Your task to perform on an android device: Open Wikipedia Image 0: 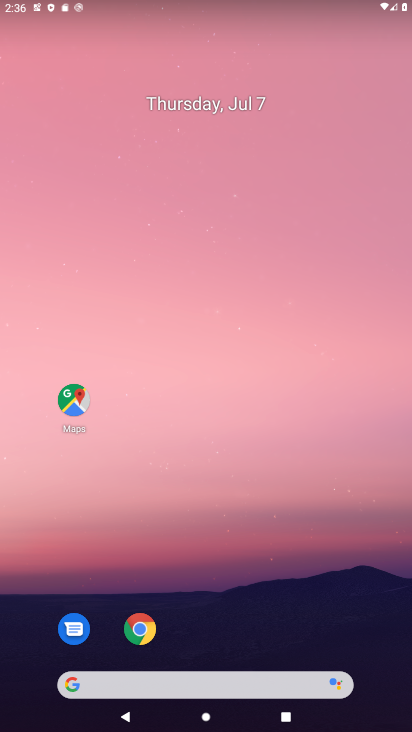
Step 0: click (140, 622)
Your task to perform on an android device: Open Wikipedia Image 1: 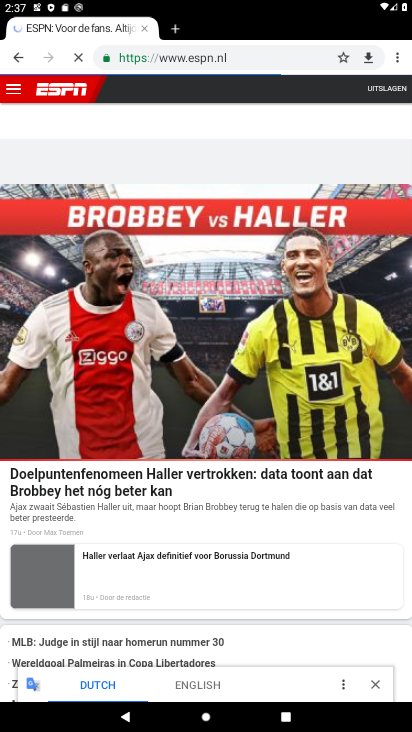
Step 1: click (173, 31)
Your task to perform on an android device: Open Wikipedia Image 2: 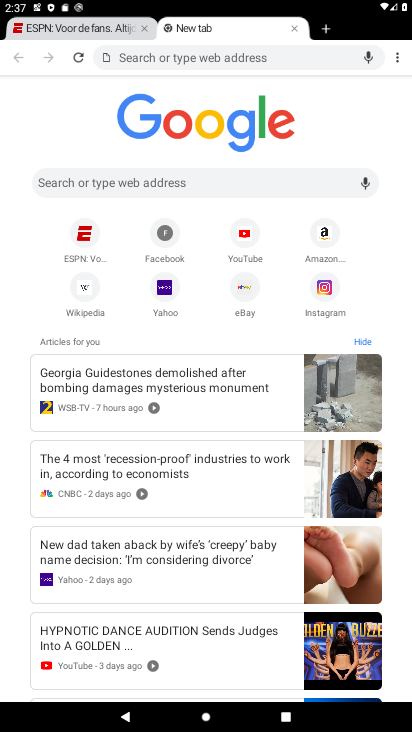
Step 2: click (81, 297)
Your task to perform on an android device: Open Wikipedia Image 3: 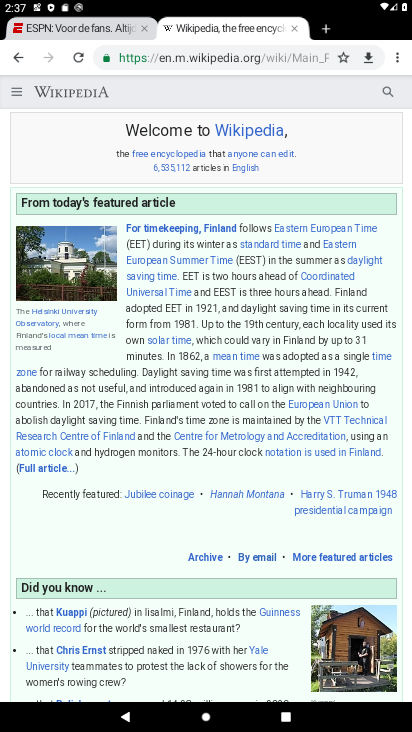
Step 3: task complete